Your task to perform on an android device: toggle wifi Image 0: 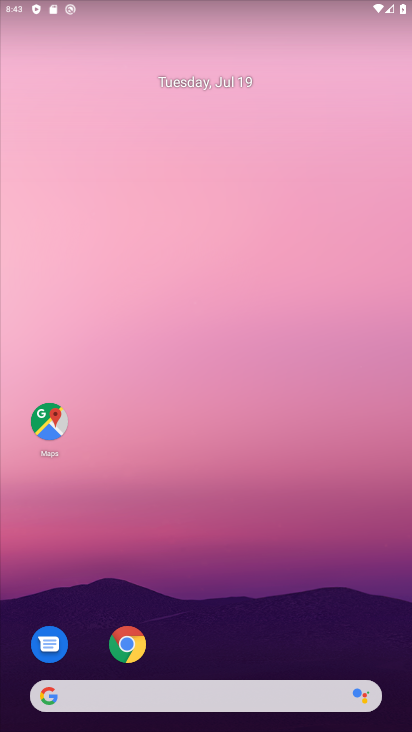
Step 0: drag from (292, 650) to (244, 96)
Your task to perform on an android device: toggle wifi Image 1: 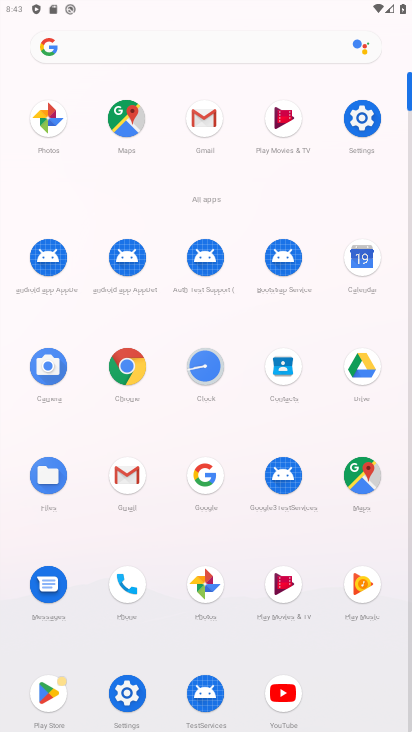
Step 1: click (365, 110)
Your task to perform on an android device: toggle wifi Image 2: 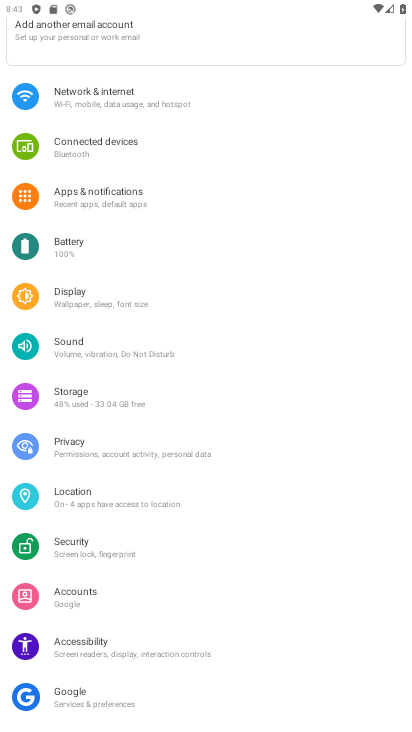
Step 2: click (279, 111)
Your task to perform on an android device: toggle wifi Image 3: 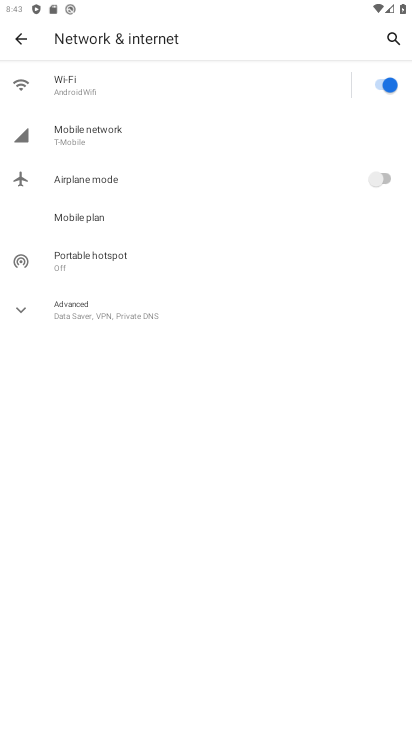
Step 3: click (384, 87)
Your task to perform on an android device: toggle wifi Image 4: 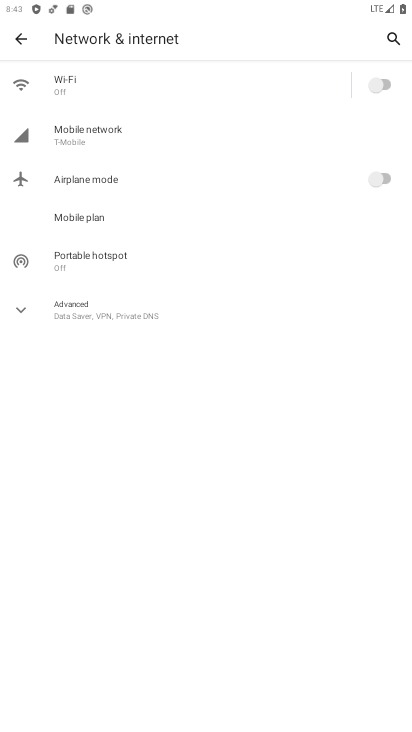
Step 4: task complete